Your task to perform on an android device: Open wifi settings Image 0: 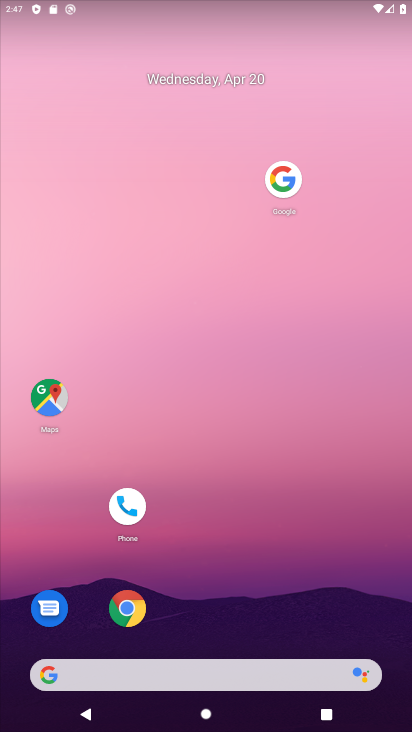
Step 0: drag from (338, 611) to (313, 76)
Your task to perform on an android device: Open wifi settings Image 1: 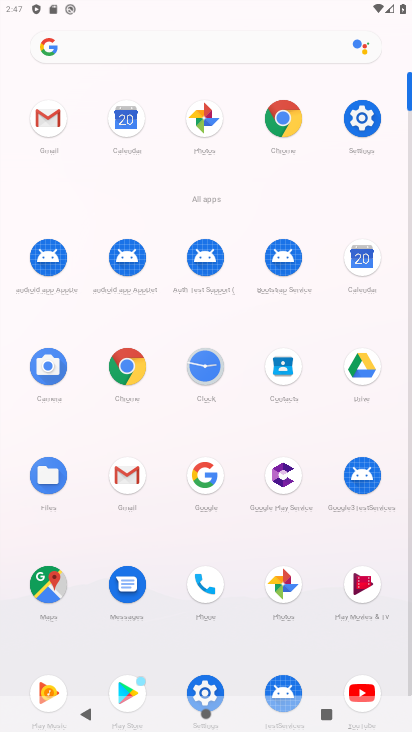
Step 1: click (375, 122)
Your task to perform on an android device: Open wifi settings Image 2: 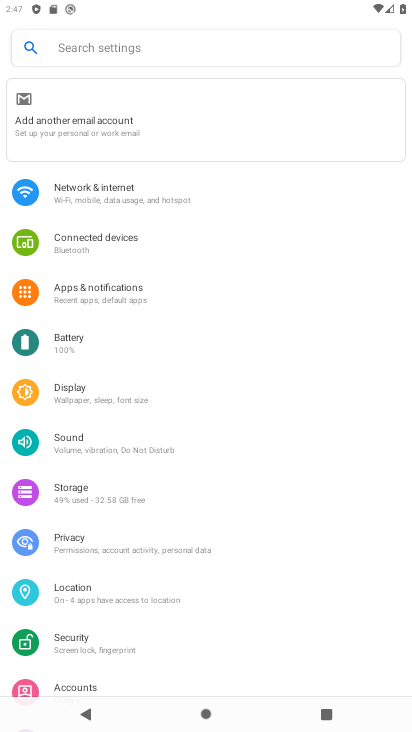
Step 2: click (132, 210)
Your task to perform on an android device: Open wifi settings Image 3: 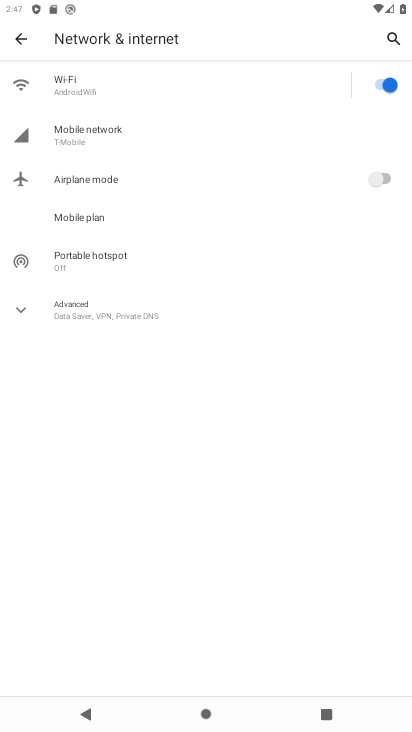
Step 3: click (173, 92)
Your task to perform on an android device: Open wifi settings Image 4: 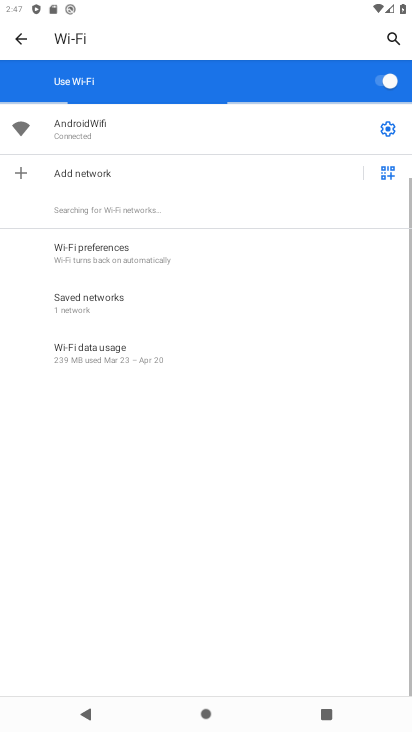
Step 4: click (385, 132)
Your task to perform on an android device: Open wifi settings Image 5: 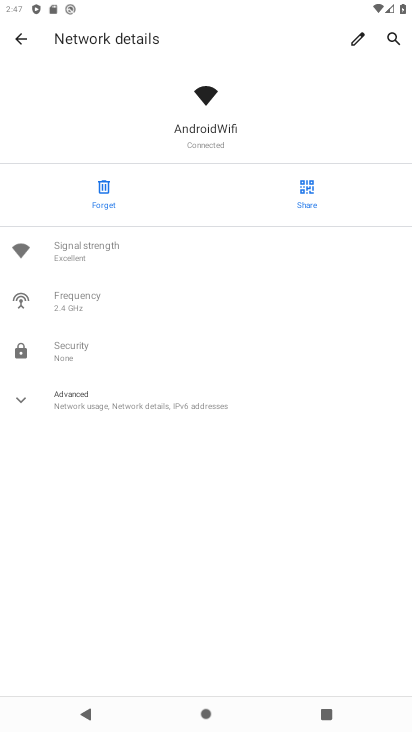
Step 5: task complete